Your task to perform on an android device: change the upload size in google photos Image 0: 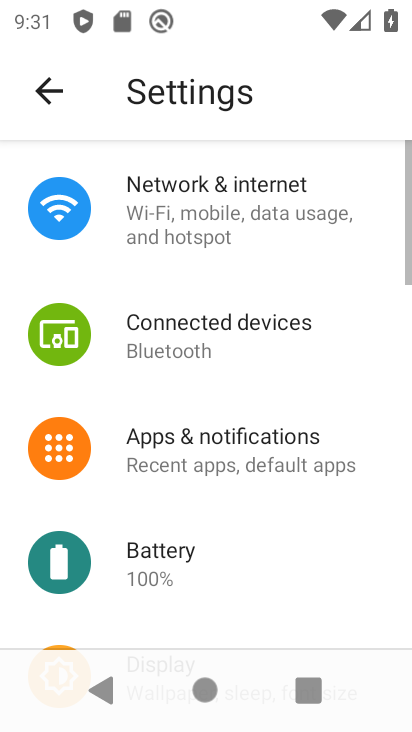
Step 0: click (385, 586)
Your task to perform on an android device: change the upload size in google photos Image 1: 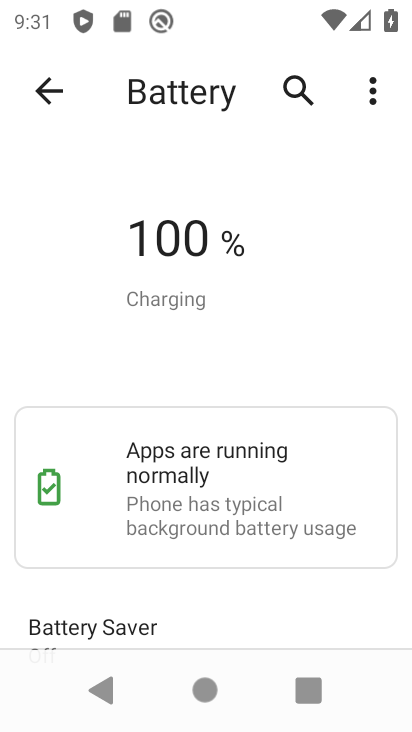
Step 1: press home button
Your task to perform on an android device: change the upload size in google photos Image 2: 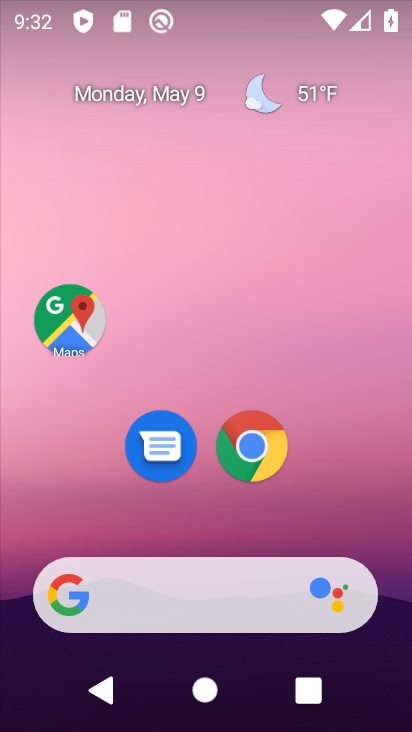
Step 2: drag from (319, 518) to (113, 24)
Your task to perform on an android device: change the upload size in google photos Image 3: 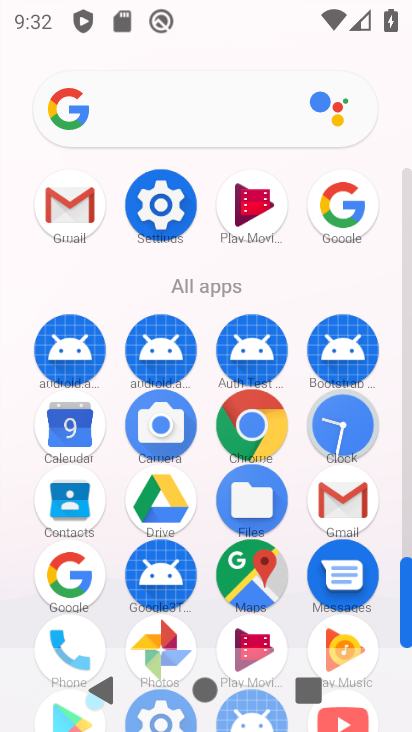
Step 3: drag from (292, 525) to (253, 57)
Your task to perform on an android device: change the upload size in google photos Image 4: 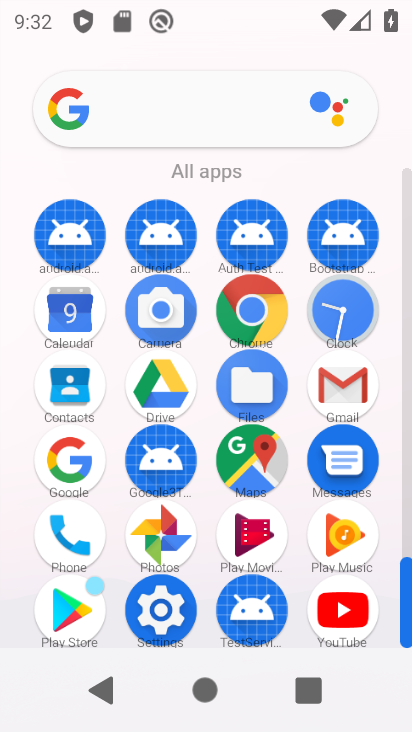
Step 4: click (168, 536)
Your task to perform on an android device: change the upload size in google photos Image 5: 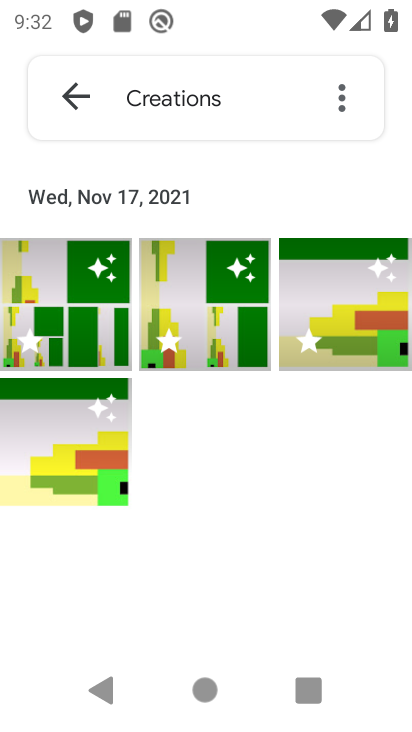
Step 5: click (75, 90)
Your task to perform on an android device: change the upload size in google photos Image 6: 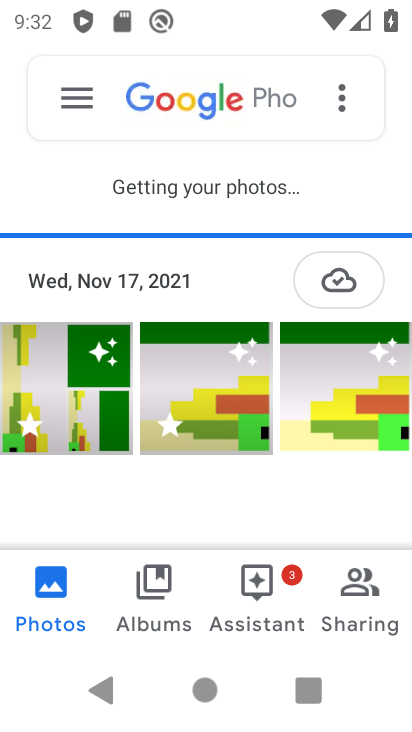
Step 6: click (75, 90)
Your task to perform on an android device: change the upload size in google photos Image 7: 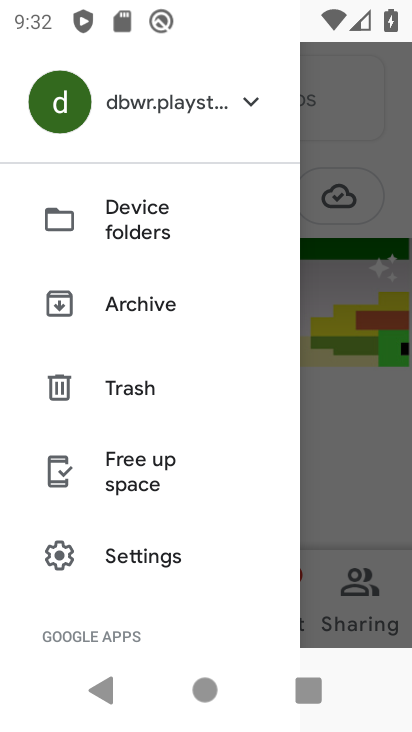
Step 7: click (215, 97)
Your task to perform on an android device: change the upload size in google photos Image 8: 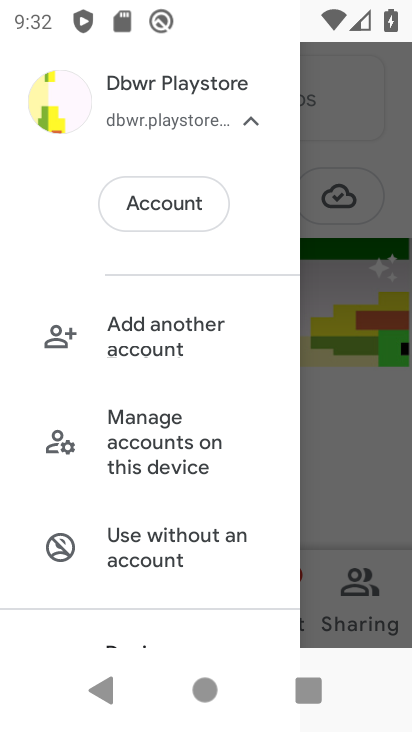
Step 8: click (176, 78)
Your task to perform on an android device: change the upload size in google photos Image 9: 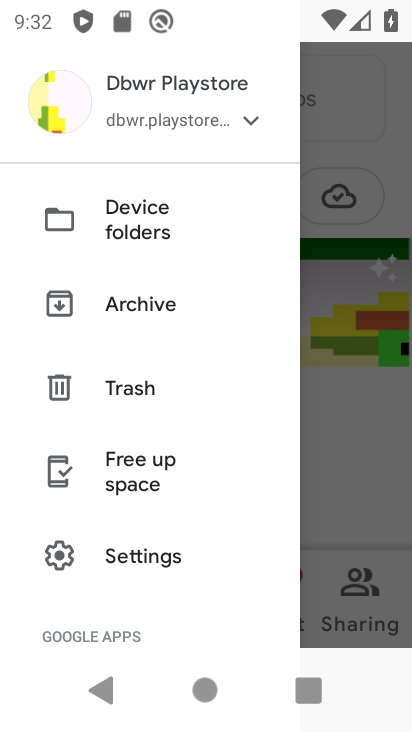
Step 9: click (133, 101)
Your task to perform on an android device: change the upload size in google photos Image 10: 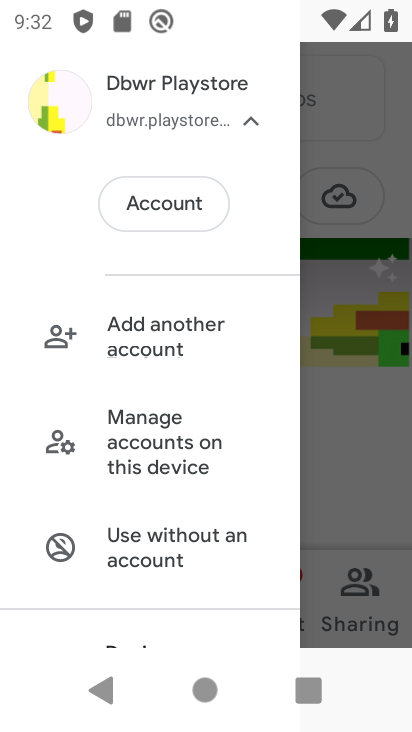
Step 10: click (66, 91)
Your task to perform on an android device: change the upload size in google photos Image 11: 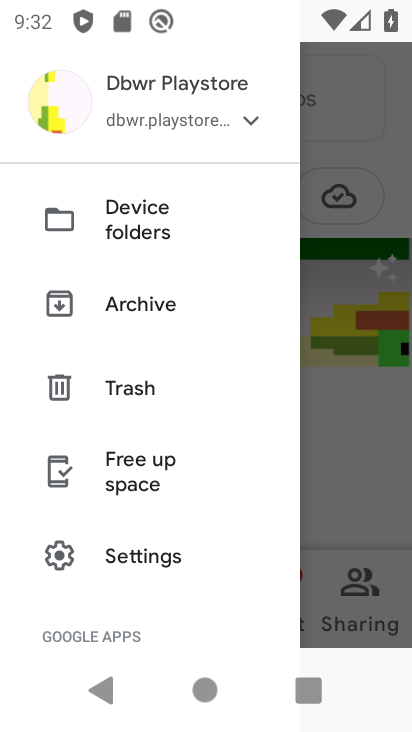
Step 11: click (148, 104)
Your task to perform on an android device: change the upload size in google photos Image 12: 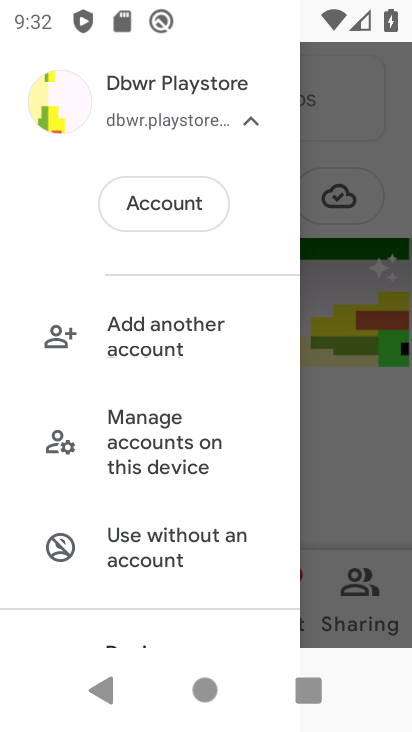
Step 12: drag from (155, 502) to (130, 31)
Your task to perform on an android device: change the upload size in google photos Image 13: 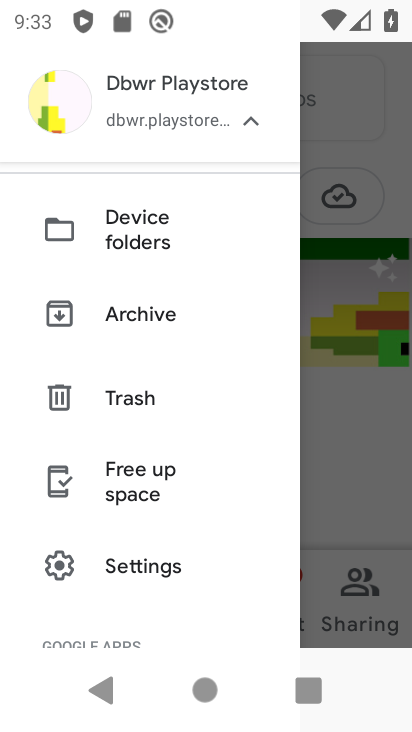
Step 13: click (157, 571)
Your task to perform on an android device: change the upload size in google photos Image 14: 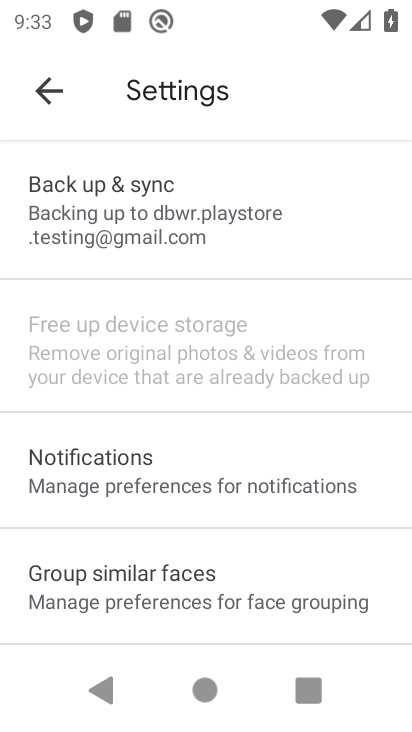
Step 14: click (115, 203)
Your task to perform on an android device: change the upload size in google photos Image 15: 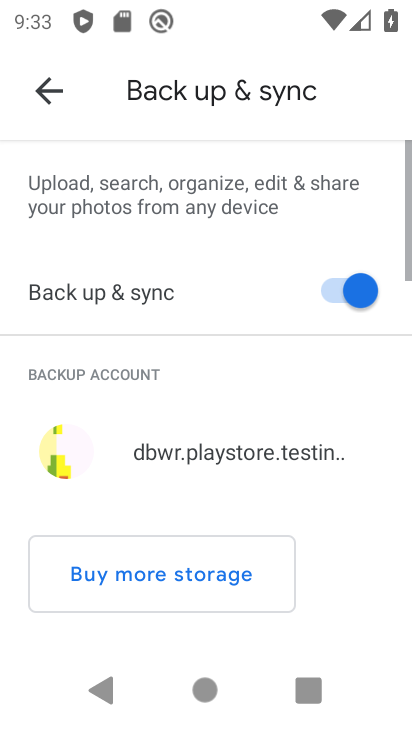
Step 15: drag from (189, 435) to (225, 71)
Your task to perform on an android device: change the upload size in google photos Image 16: 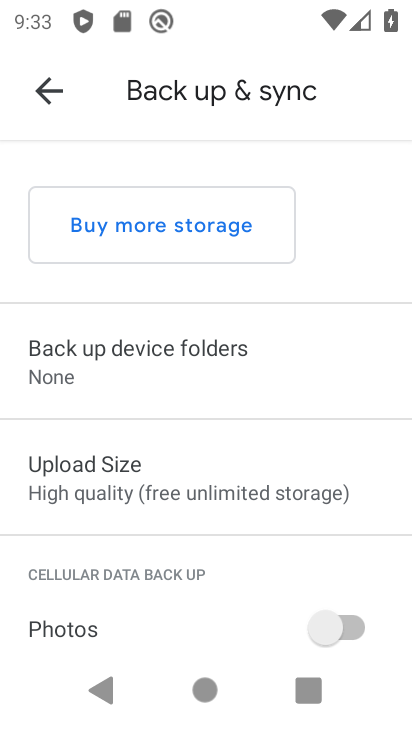
Step 16: click (135, 477)
Your task to perform on an android device: change the upload size in google photos Image 17: 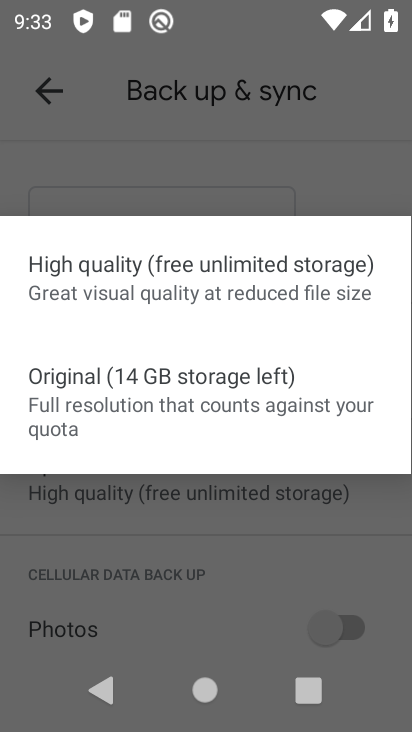
Step 17: click (118, 405)
Your task to perform on an android device: change the upload size in google photos Image 18: 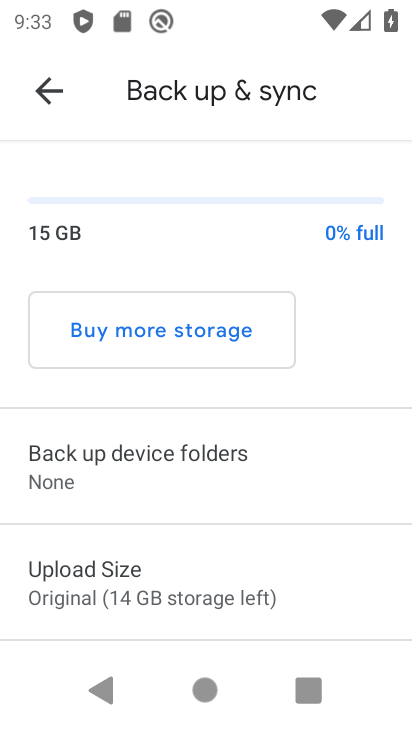
Step 18: task complete